Your task to perform on an android device: Open sound settings Image 0: 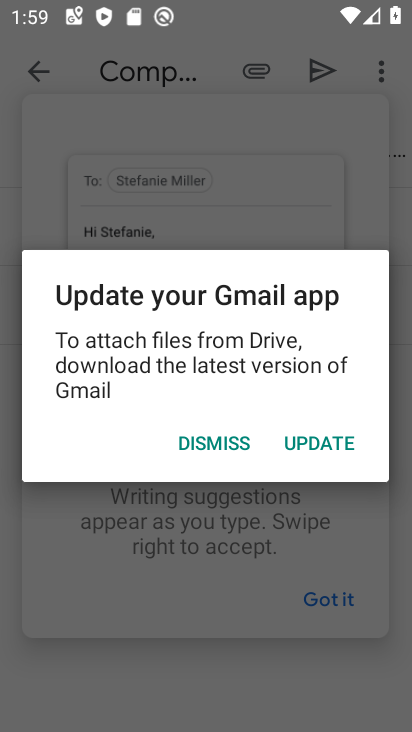
Step 0: press home button
Your task to perform on an android device: Open sound settings Image 1: 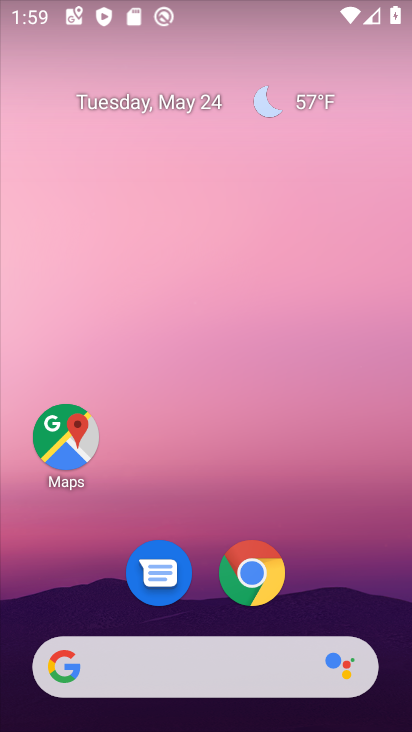
Step 1: drag from (367, 574) to (388, 246)
Your task to perform on an android device: Open sound settings Image 2: 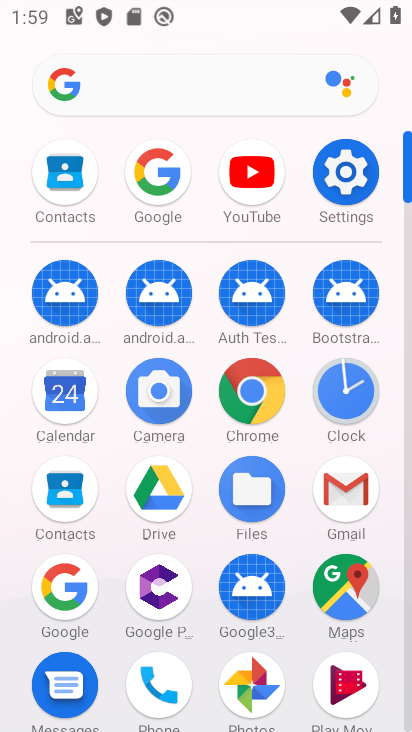
Step 2: drag from (199, 646) to (222, 421)
Your task to perform on an android device: Open sound settings Image 3: 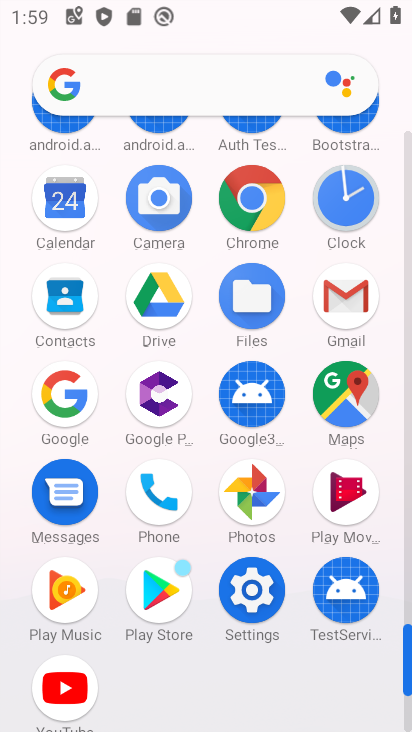
Step 3: click (242, 597)
Your task to perform on an android device: Open sound settings Image 4: 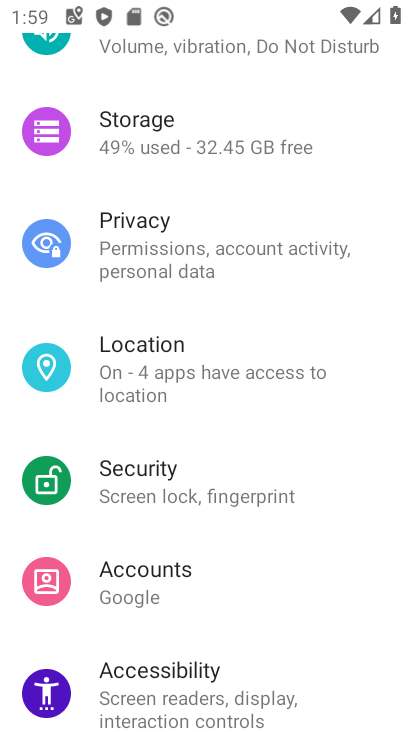
Step 4: drag from (237, 586) to (210, 283)
Your task to perform on an android device: Open sound settings Image 5: 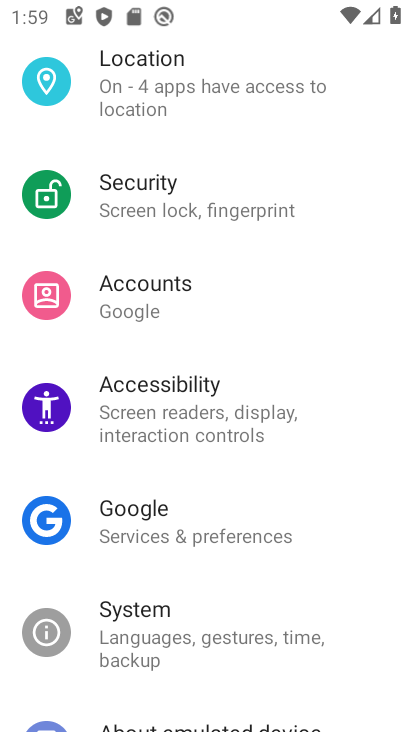
Step 5: drag from (247, 657) to (214, 378)
Your task to perform on an android device: Open sound settings Image 6: 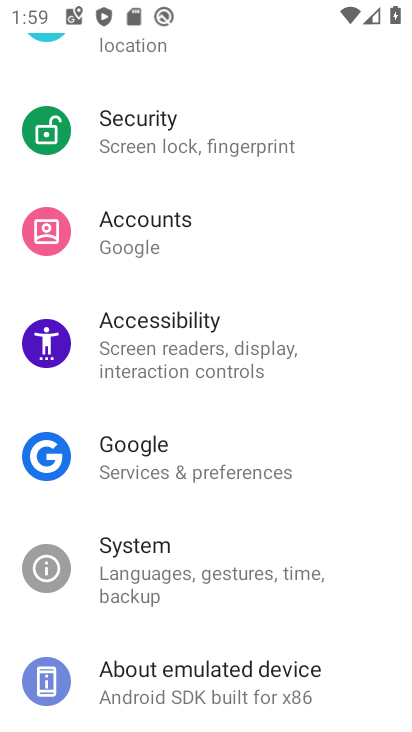
Step 6: drag from (222, 583) to (216, 684)
Your task to perform on an android device: Open sound settings Image 7: 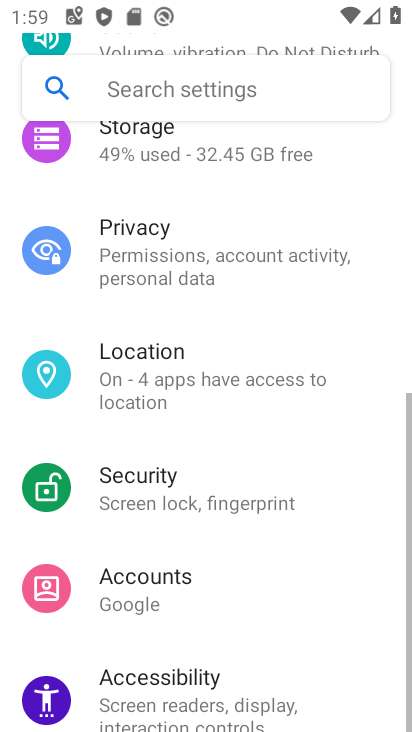
Step 7: drag from (264, 384) to (395, 719)
Your task to perform on an android device: Open sound settings Image 8: 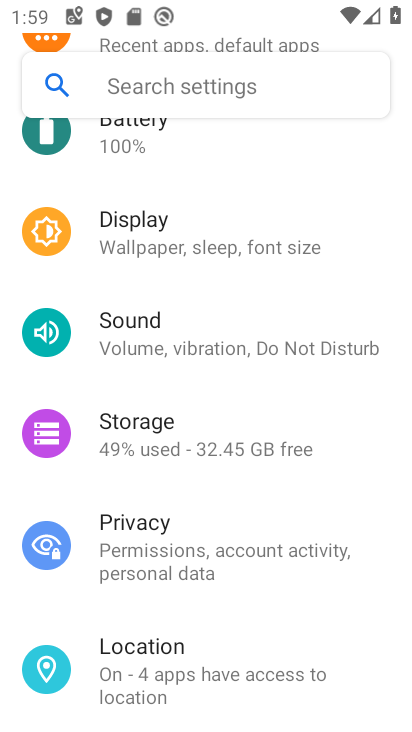
Step 8: click (195, 345)
Your task to perform on an android device: Open sound settings Image 9: 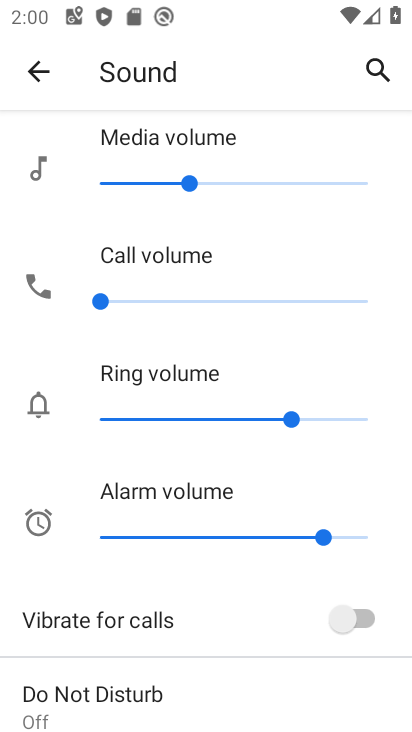
Step 9: click (195, 345)
Your task to perform on an android device: Open sound settings Image 10: 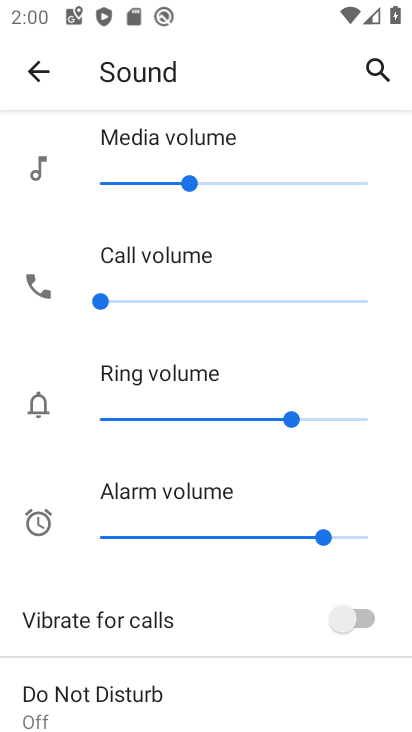
Step 10: task complete